Your task to perform on an android device: turn on the 24-hour format for clock Image 0: 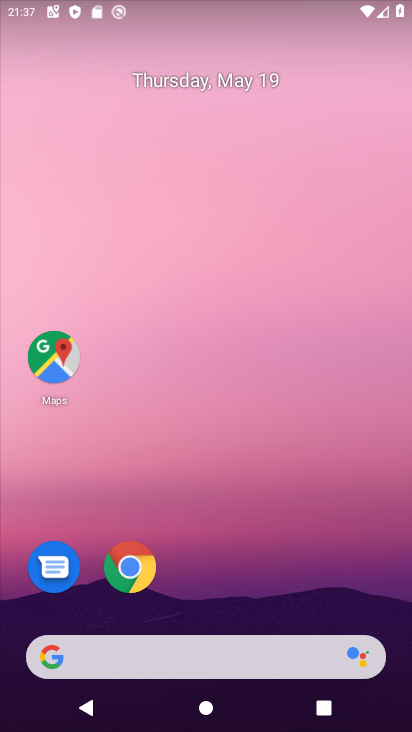
Step 0: drag from (257, 604) to (260, 84)
Your task to perform on an android device: turn on the 24-hour format for clock Image 1: 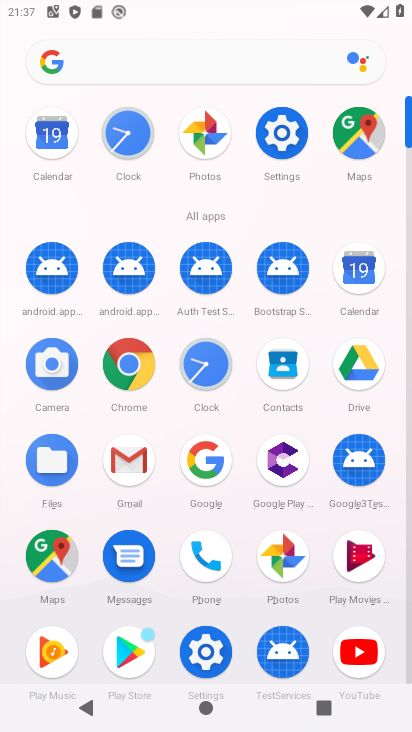
Step 1: click (200, 360)
Your task to perform on an android device: turn on the 24-hour format for clock Image 2: 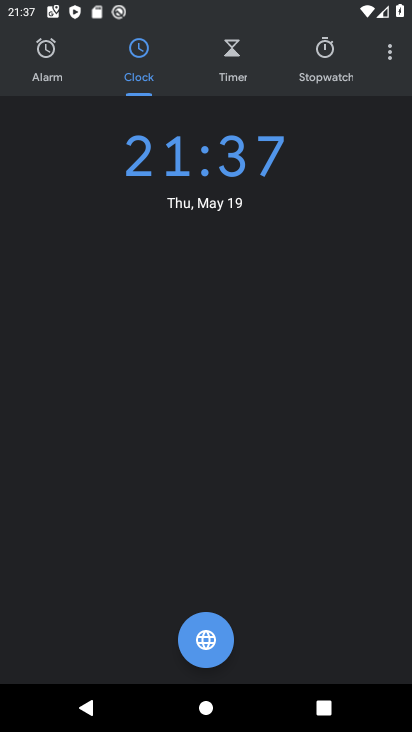
Step 2: click (392, 47)
Your task to perform on an android device: turn on the 24-hour format for clock Image 3: 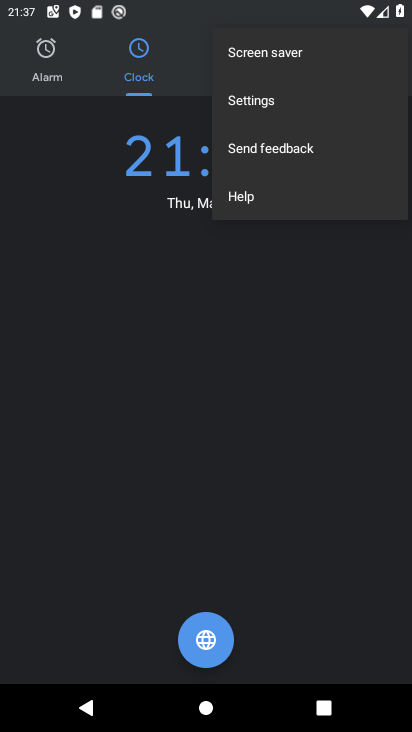
Step 3: click (269, 109)
Your task to perform on an android device: turn on the 24-hour format for clock Image 4: 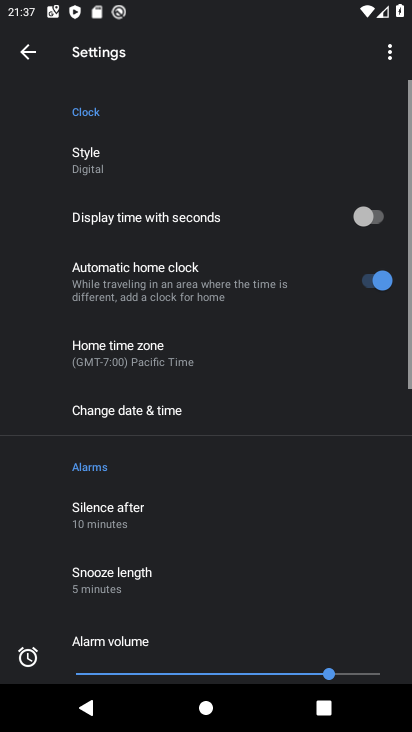
Step 4: click (188, 415)
Your task to perform on an android device: turn on the 24-hour format for clock Image 5: 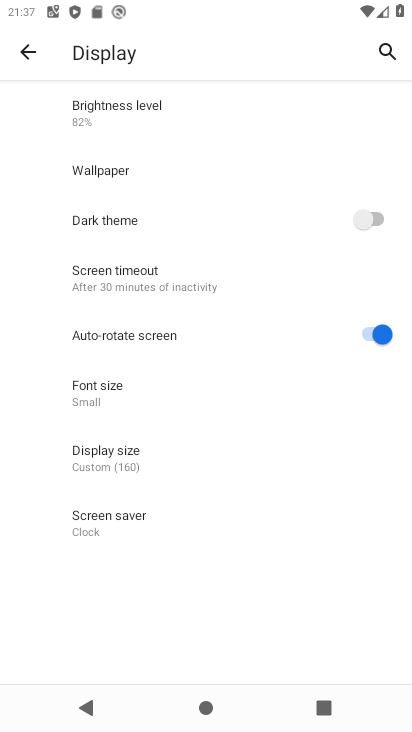
Step 5: click (20, 56)
Your task to perform on an android device: turn on the 24-hour format for clock Image 6: 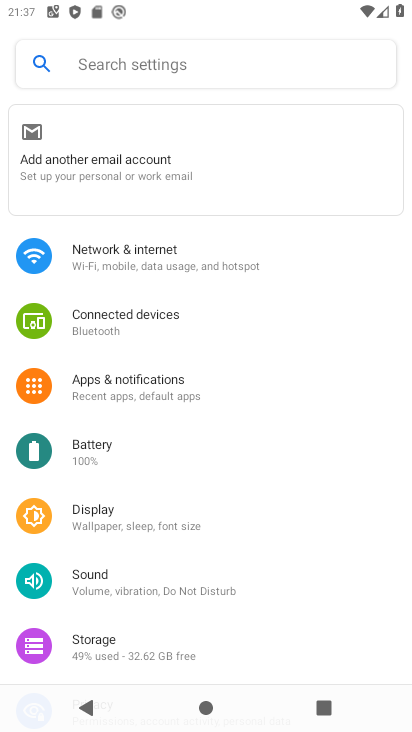
Step 6: task complete